Your task to perform on an android device: Search for usb-c on costco, select the first entry, add it to the cart, then select checkout. Image 0: 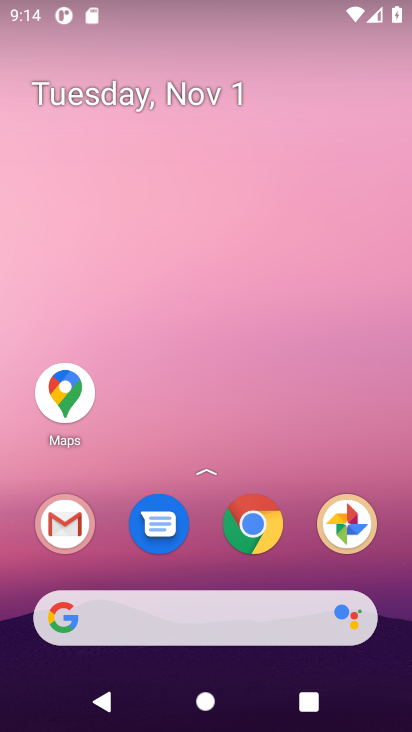
Step 0: press home button
Your task to perform on an android device: Search for usb-c on costco, select the first entry, add it to the cart, then select checkout. Image 1: 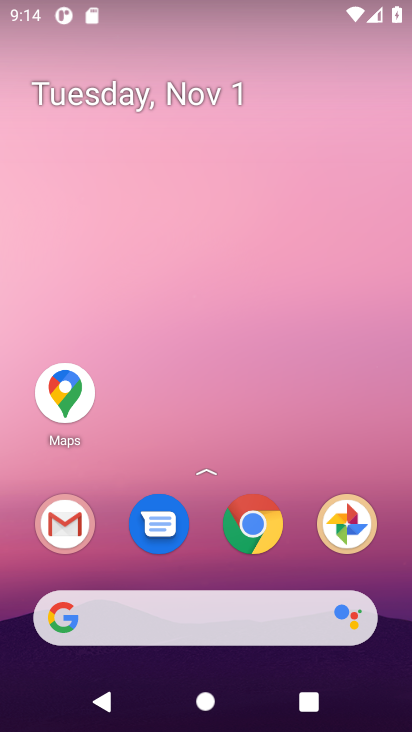
Step 1: click (97, 612)
Your task to perform on an android device: Search for usb-c on costco, select the first entry, add it to the cart, then select checkout. Image 2: 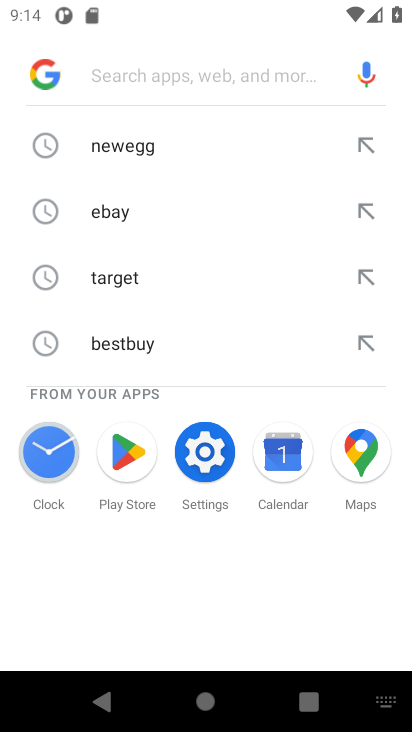
Step 2: type "costco"
Your task to perform on an android device: Search for usb-c on costco, select the first entry, add it to the cart, then select checkout. Image 3: 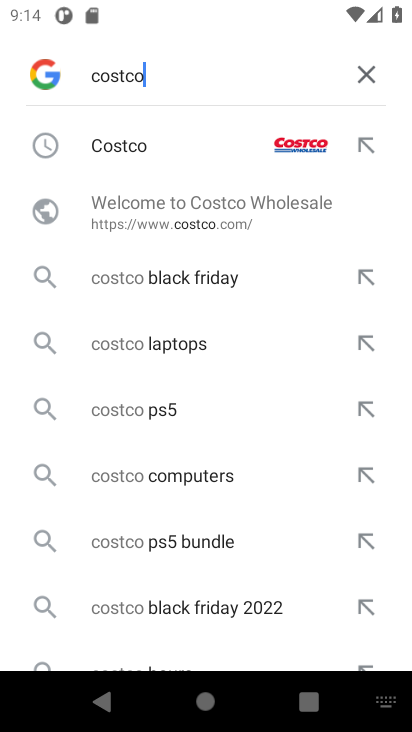
Step 3: press enter
Your task to perform on an android device: Search for usb-c on costco, select the first entry, add it to the cart, then select checkout. Image 4: 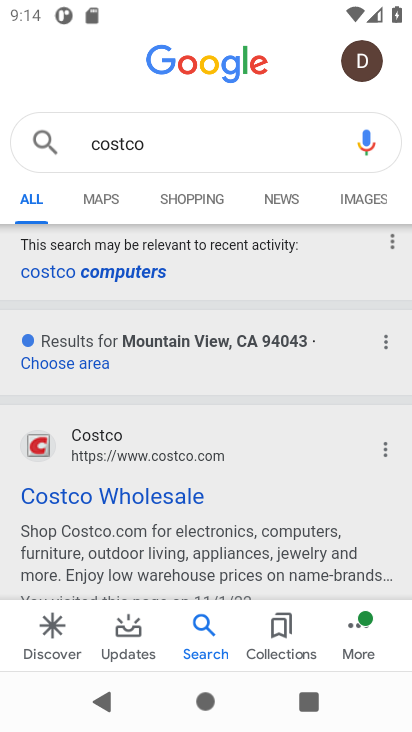
Step 4: click (149, 498)
Your task to perform on an android device: Search for usb-c on costco, select the first entry, add it to the cart, then select checkout. Image 5: 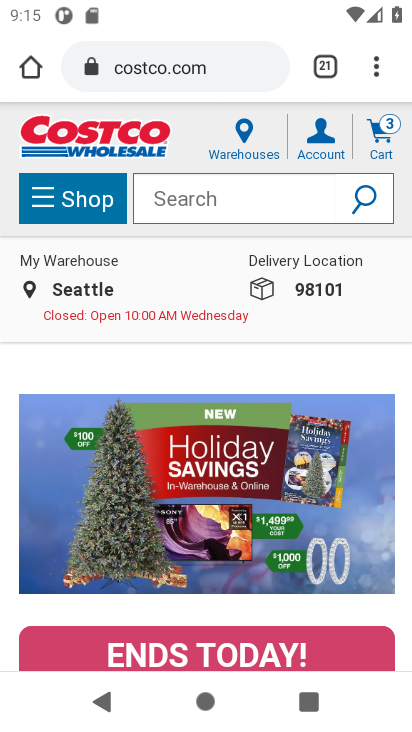
Step 5: click (162, 201)
Your task to perform on an android device: Search for usb-c on costco, select the first entry, add it to the cart, then select checkout. Image 6: 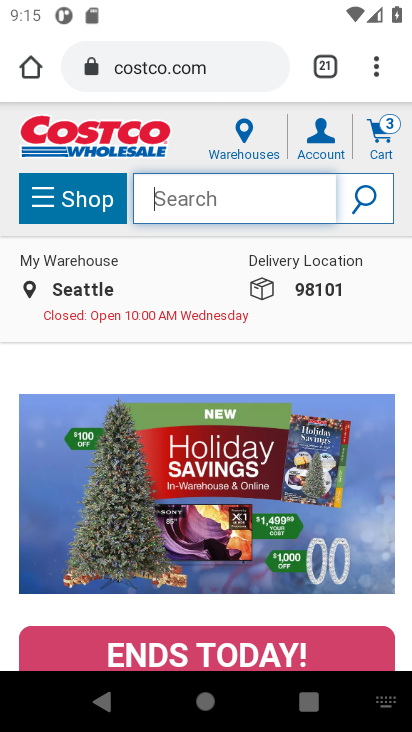
Step 6: type "usb c"
Your task to perform on an android device: Search for usb-c on costco, select the first entry, add it to the cart, then select checkout. Image 7: 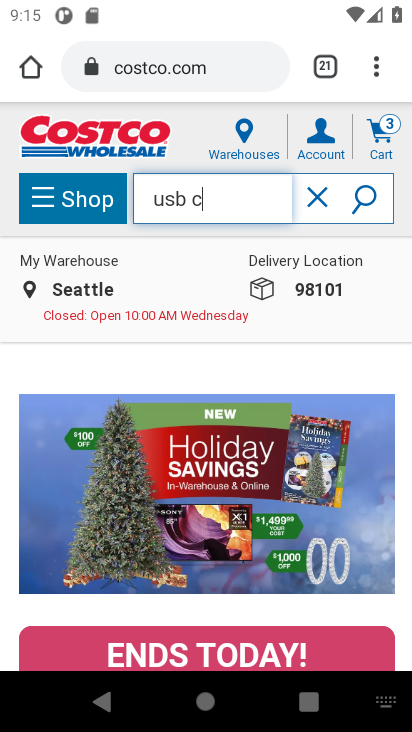
Step 7: press enter
Your task to perform on an android device: Search for usb-c on costco, select the first entry, add it to the cart, then select checkout. Image 8: 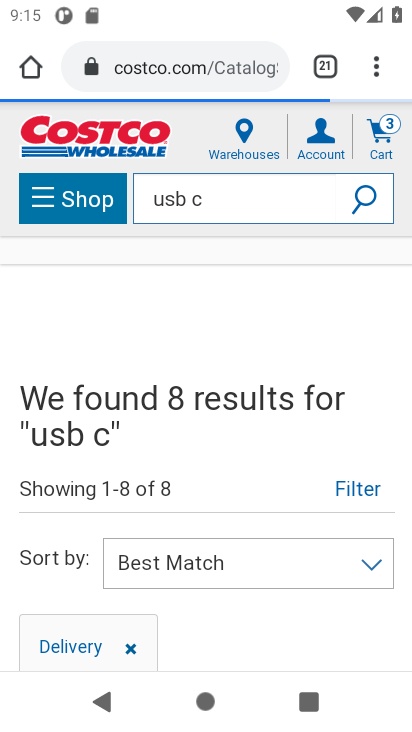
Step 8: drag from (270, 549) to (265, 261)
Your task to perform on an android device: Search for usb-c on costco, select the first entry, add it to the cart, then select checkout. Image 9: 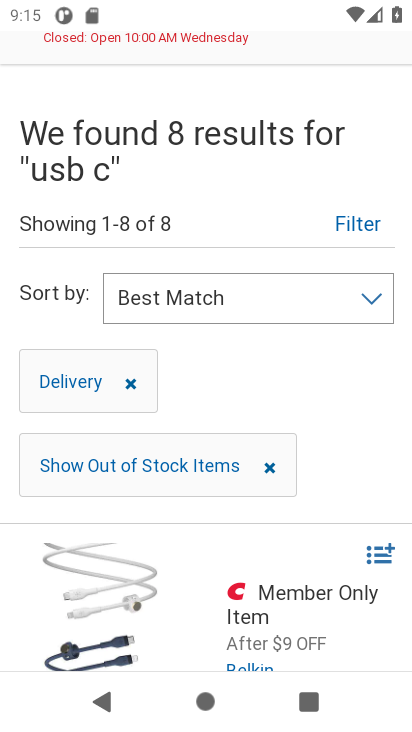
Step 9: drag from (203, 556) to (241, 239)
Your task to perform on an android device: Search for usb-c on costco, select the first entry, add it to the cart, then select checkout. Image 10: 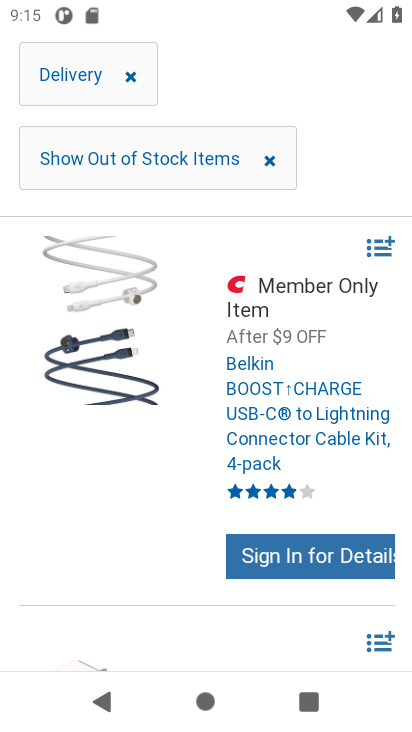
Step 10: drag from (154, 502) to (173, 305)
Your task to perform on an android device: Search for usb-c on costco, select the first entry, add it to the cart, then select checkout. Image 11: 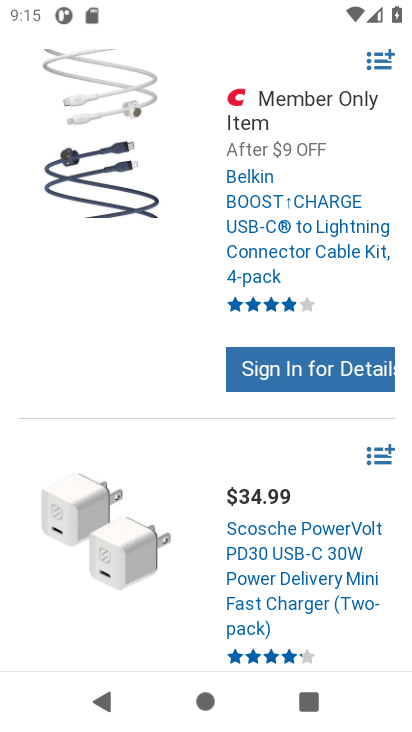
Step 11: click (288, 204)
Your task to perform on an android device: Search for usb-c on costco, select the first entry, add it to the cart, then select checkout. Image 12: 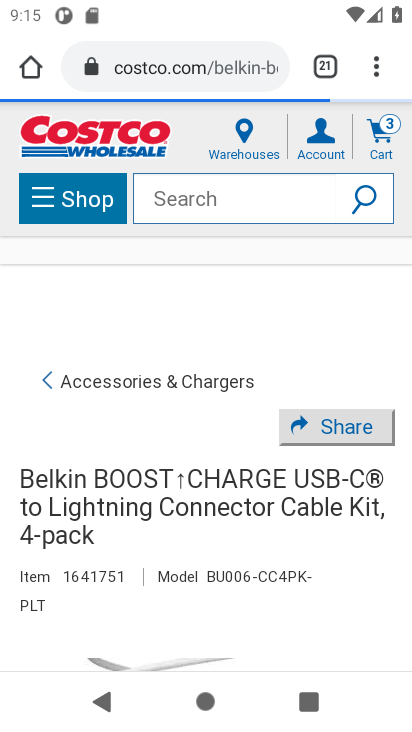
Step 12: drag from (212, 547) to (215, 314)
Your task to perform on an android device: Search for usb-c on costco, select the first entry, add it to the cart, then select checkout. Image 13: 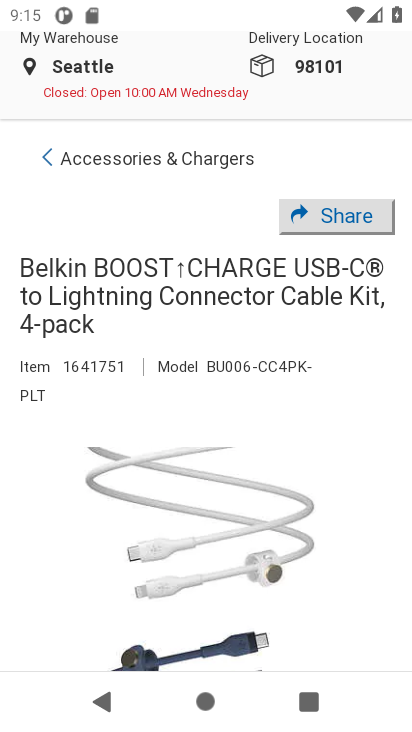
Step 13: drag from (167, 612) to (190, 223)
Your task to perform on an android device: Search for usb-c on costco, select the first entry, add it to the cart, then select checkout. Image 14: 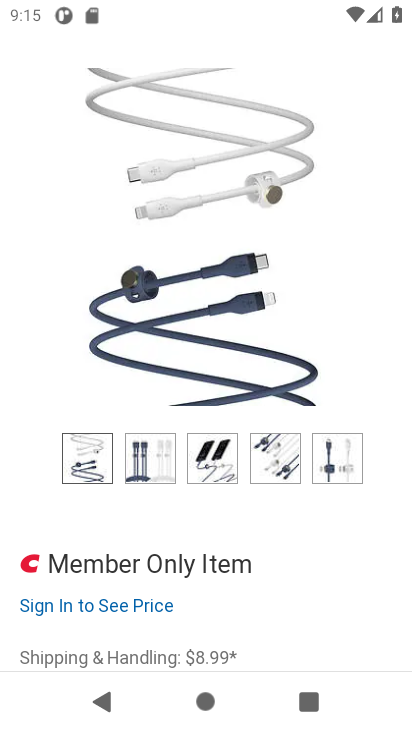
Step 14: drag from (187, 587) to (223, 239)
Your task to perform on an android device: Search for usb-c on costco, select the first entry, add it to the cart, then select checkout. Image 15: 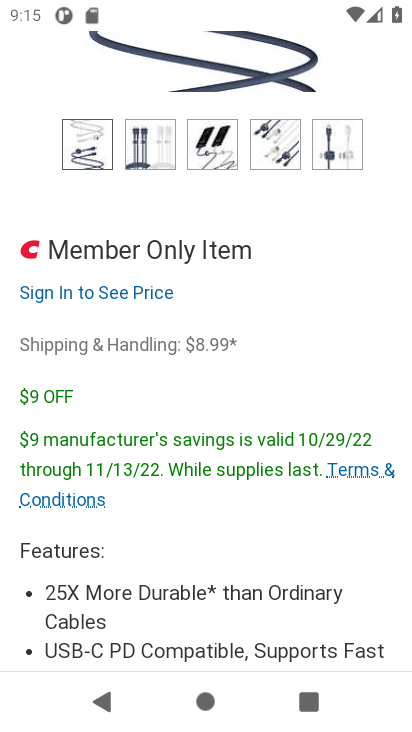
Step 15: drag from (216, 588) to (252, 256)
Your task to perform on an android device: Search for usb-c on costco, select the first entry, add it to the cart, then select checkout. Image 16: 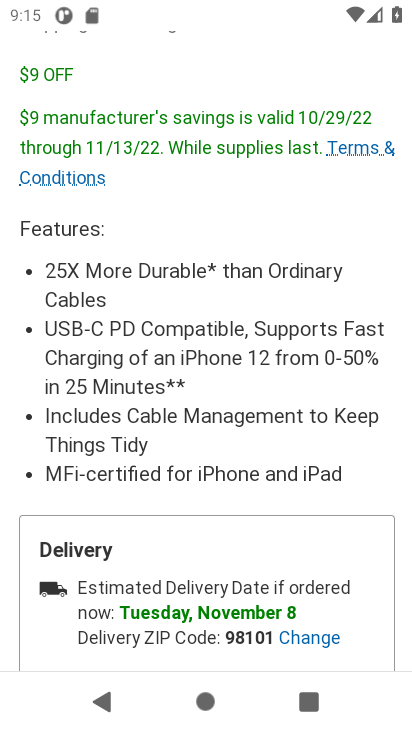
Step 16: drag from (305, 596) to (301, 205)
Your task to perform on an android device: Search for usb-c on costco, select the first entry, add it to the cart, then select checkout. Image 17: 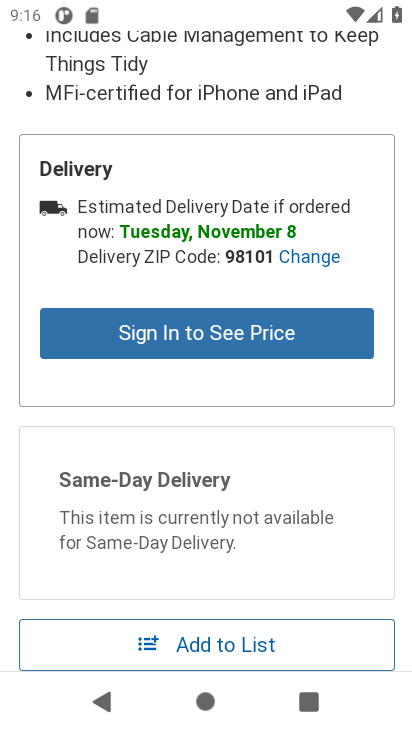
Step 17: click (218, 644)
Your task to perform on an android device: Search for usb-c on costco, select the first entry, add it to the cart, then select checkout. Image 18: 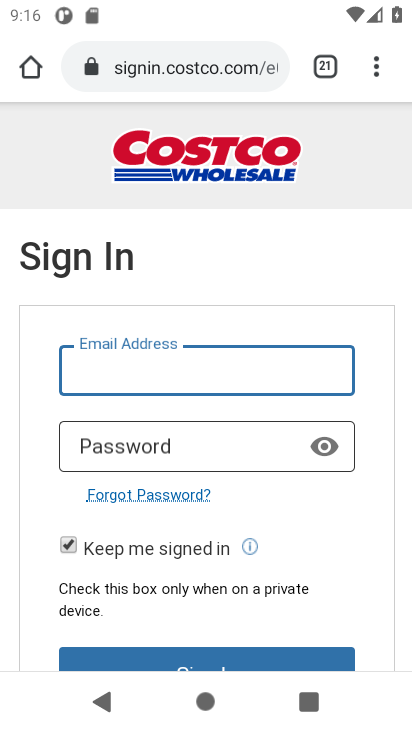
Step 18: task complete